Your task to perform on an android device: find snoozed emails in the gmail app Image 0: 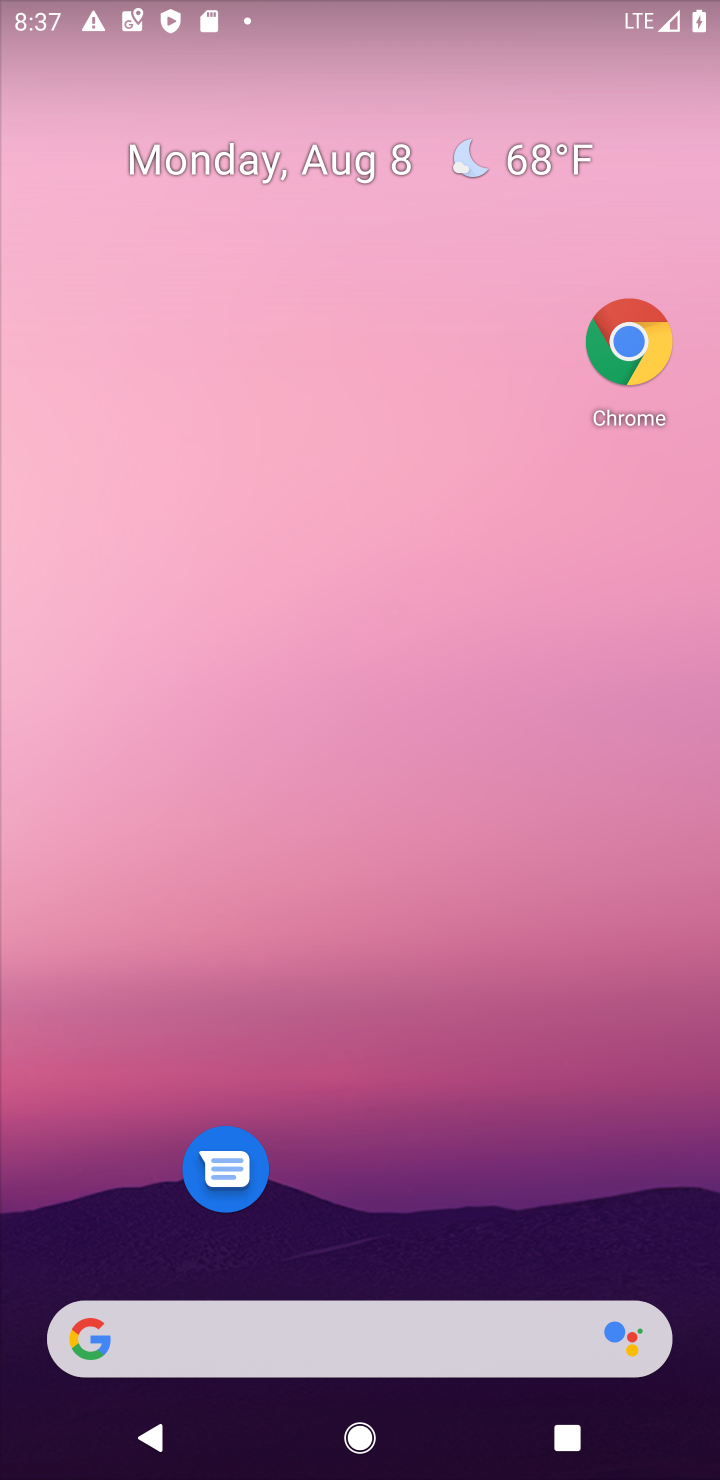
Step 0: drag from (391, 1214) to (611, 73)
Your task to perform on an android device: find snoozed emails in the gmail app Image 1: 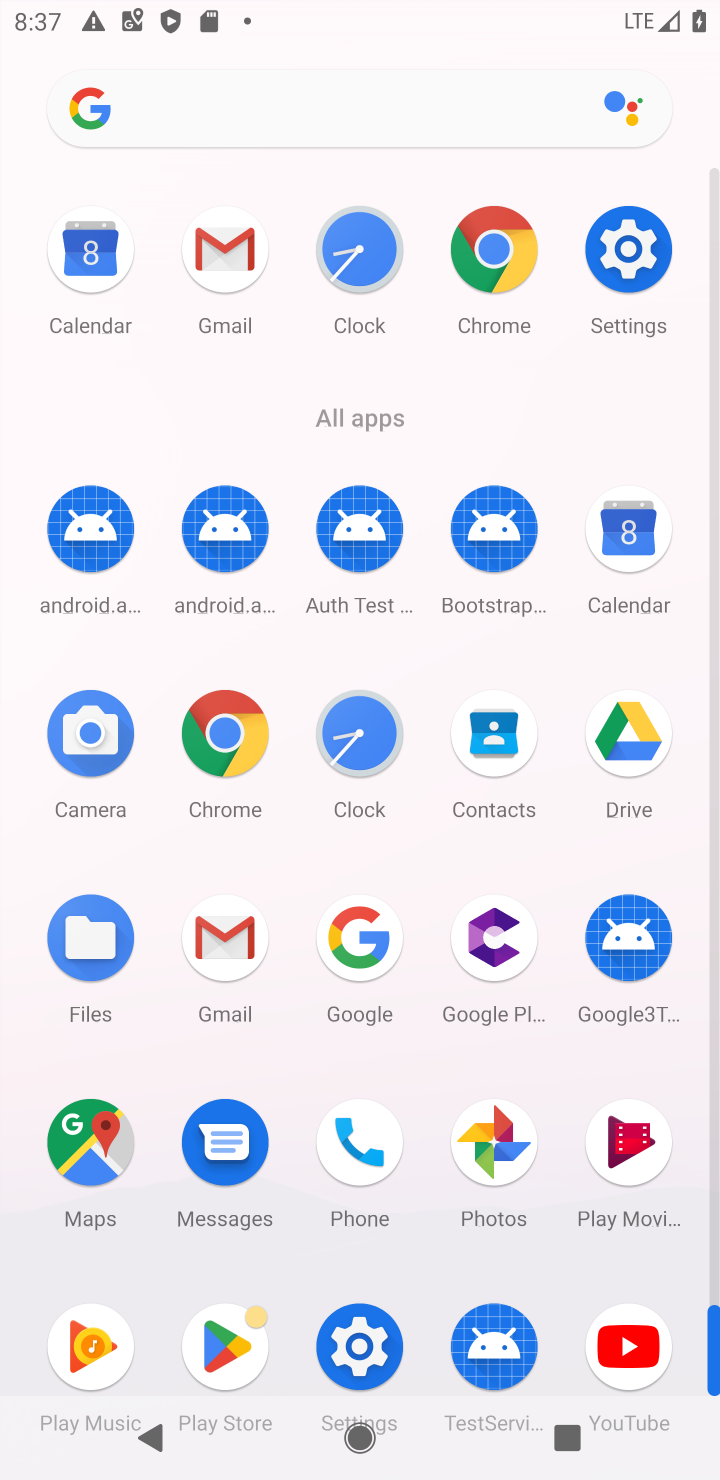
Step 1: click (246, 231)
Your task to perform on an android device: find snoozed emails in the gmail app Image 2: 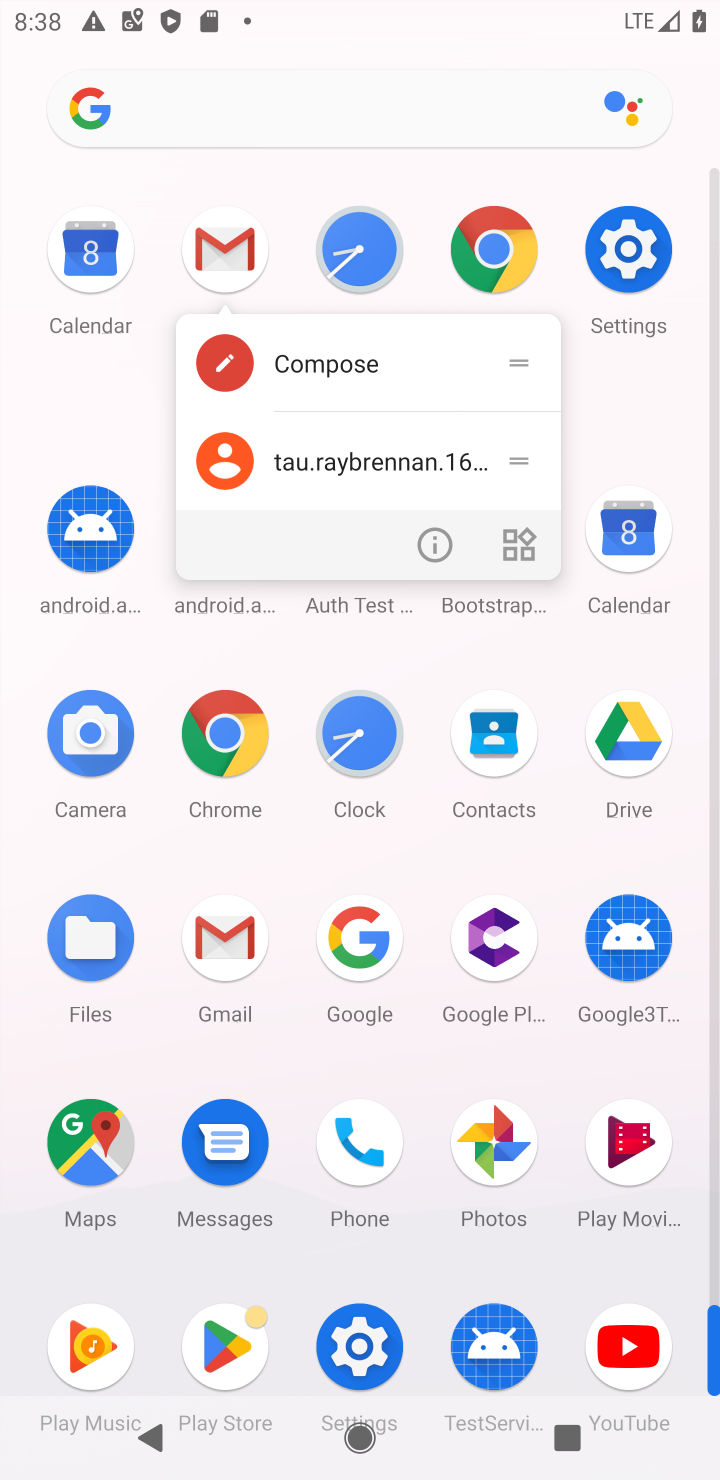
Step 2: click (254, 222)
Your task to perform on an android device: find snoozed emails in the gmail app Image 3: 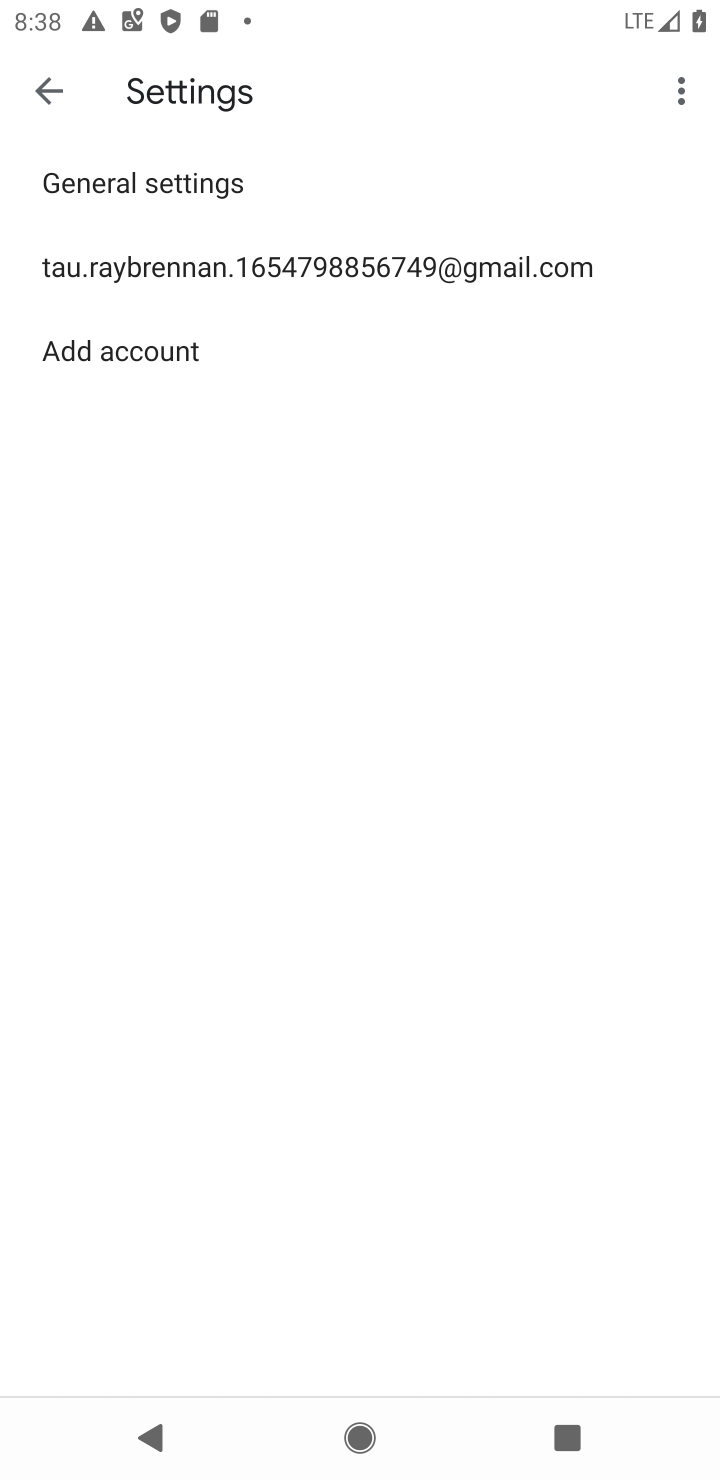
Step 3: click (57, 80)
Your task to perform on an android device: find snoozed emails in the gmail app Image 4: 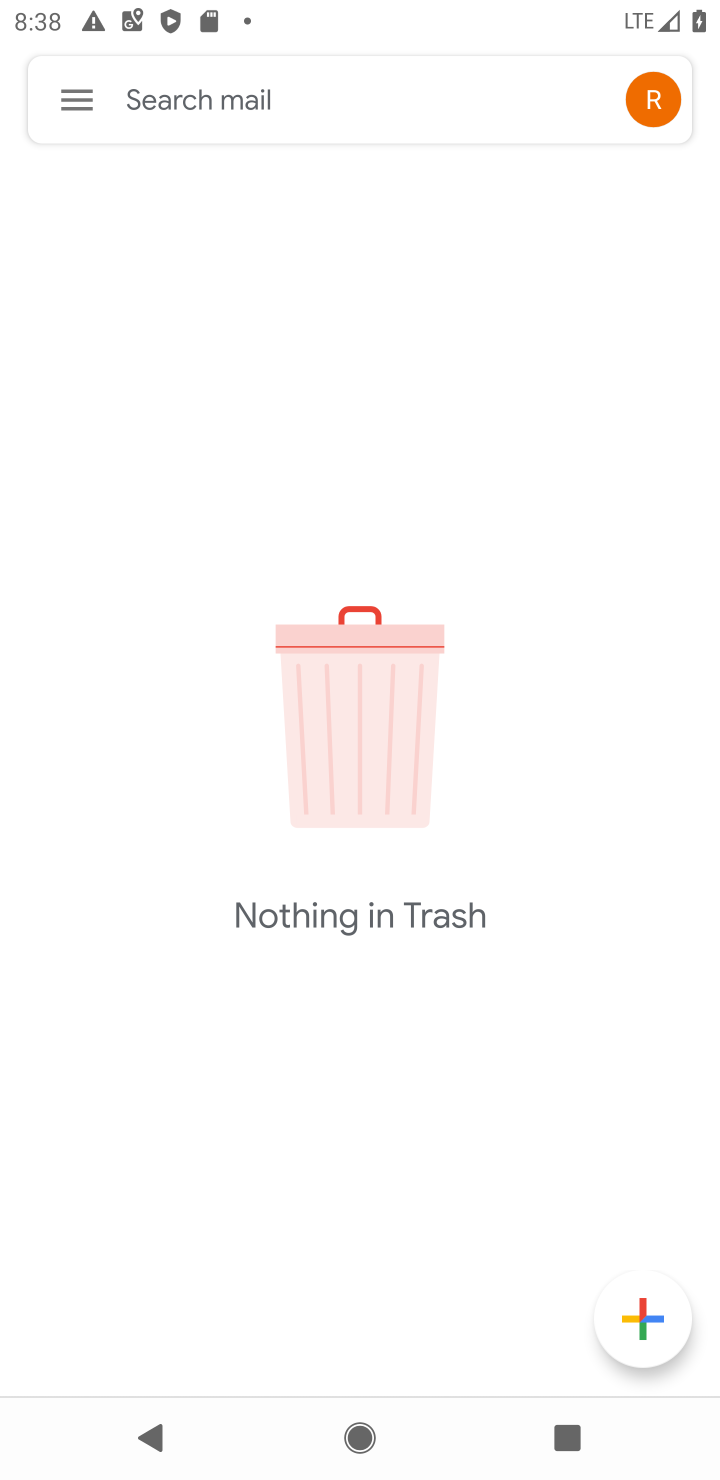
Step 4: click (83, 88)
Your task to perform on an android device: find snoozed emails in the gmail app Image 5: 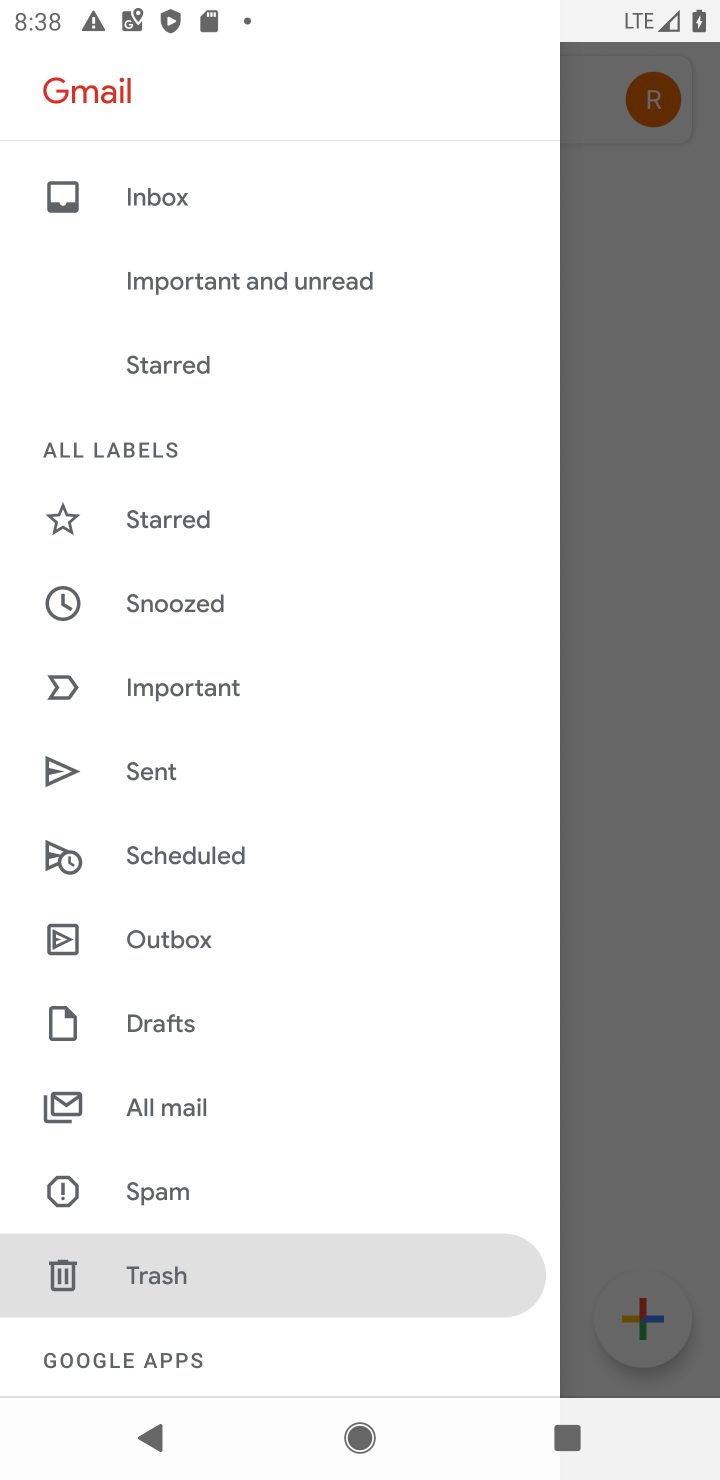
Step 5: click (167, 600)
Your task to perform on an android device: find snoozed emails in the gmail app Image 6: 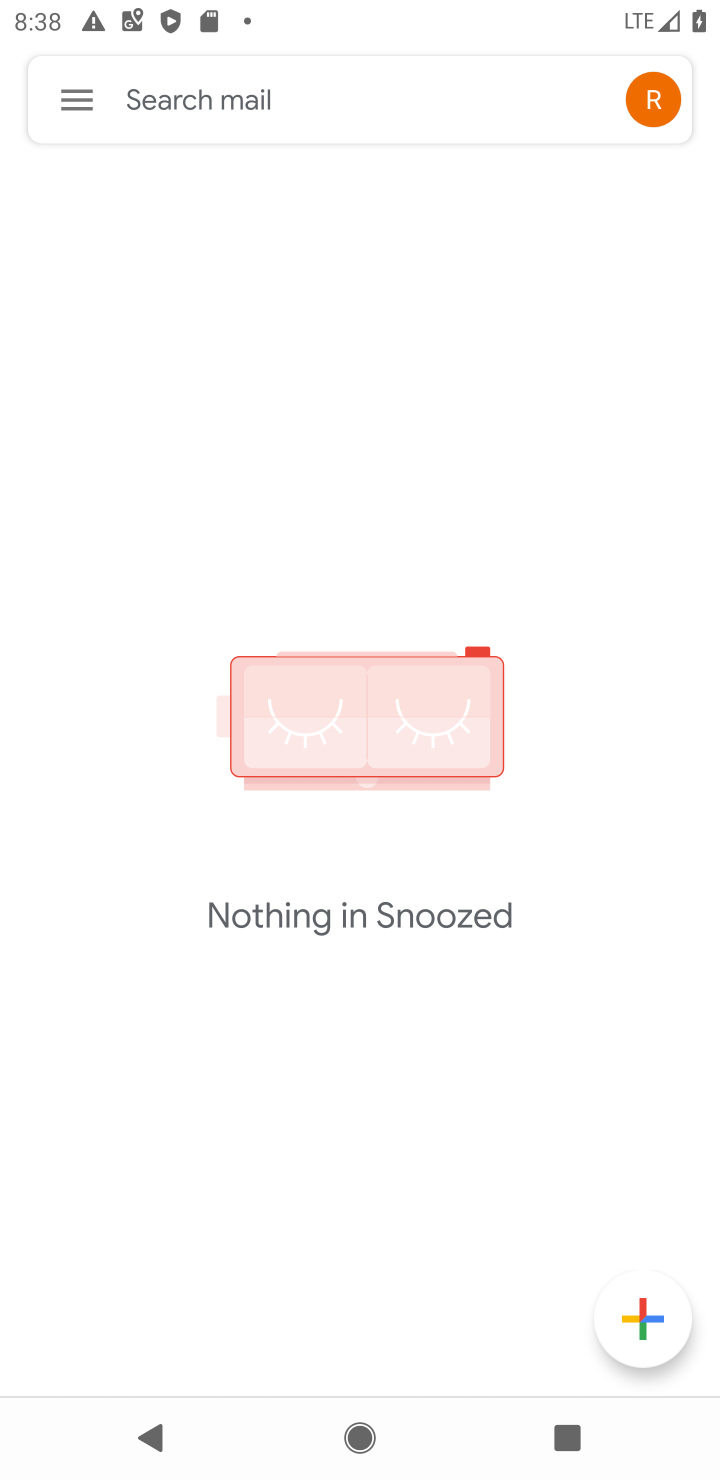
Step 6: task complete